Your task to perform on an android device: Open Google Maps and go to "Timeline" Image 0: 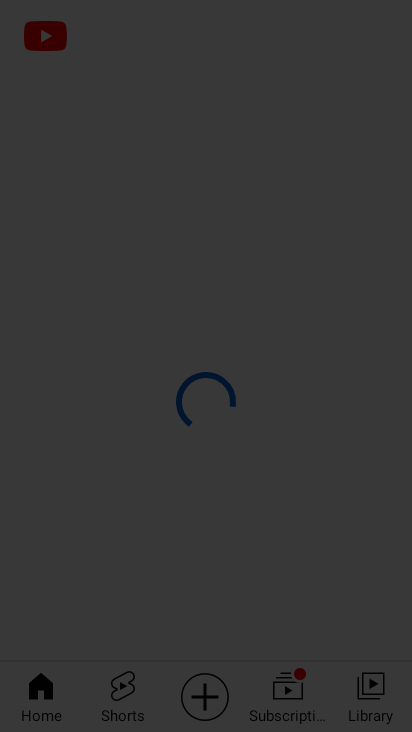
Step 0: click (262, 562)
Your task to perform on an android device: Open Google Maps and go to "Timeline" Image 1: 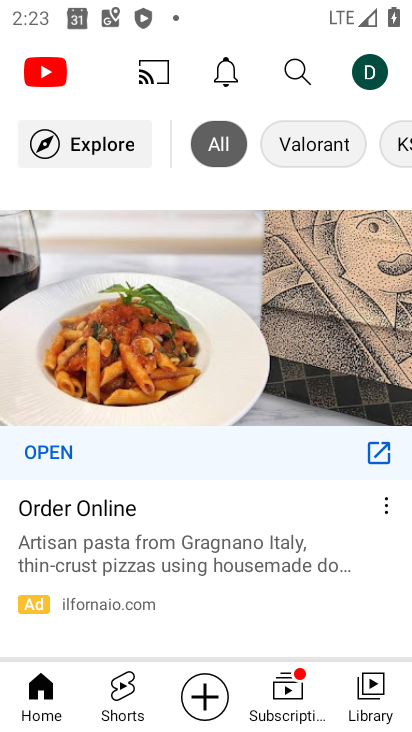
Step 1: press home button
Your task to perform on an android device: Open Google Maps and go to "Timeline" Image 2: 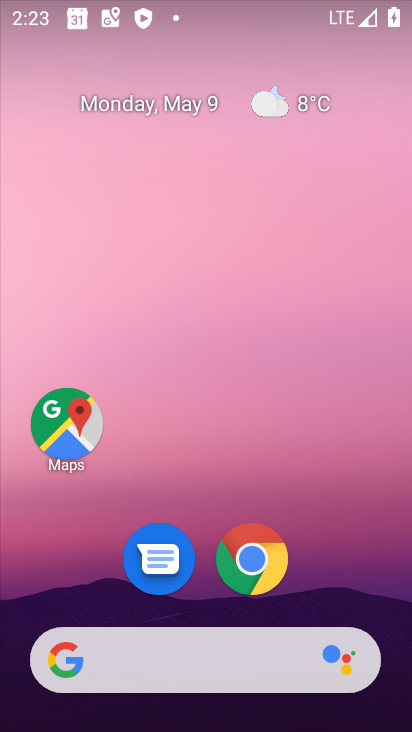
Step 2: click (72, 437)
Your task to perform on an android device: Open Google Maps and go to "Timeline" Image 3: 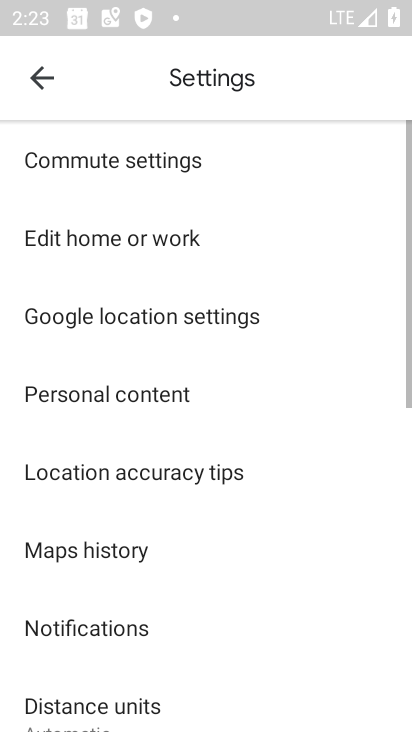
Step 3: click (37, 78)
Your task to perform on an android device: Open Google Maps and go to "Timeline" Image 4: 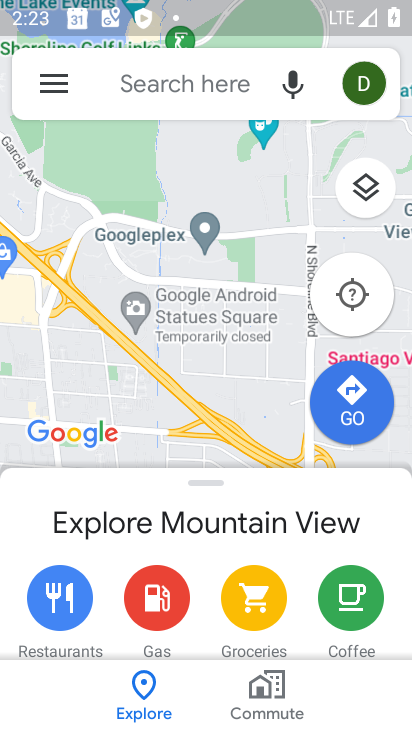
Step 4: click (39, 78)
Your task to perform on an android device: Open Google Maps and go to "Timeline" Image 5: 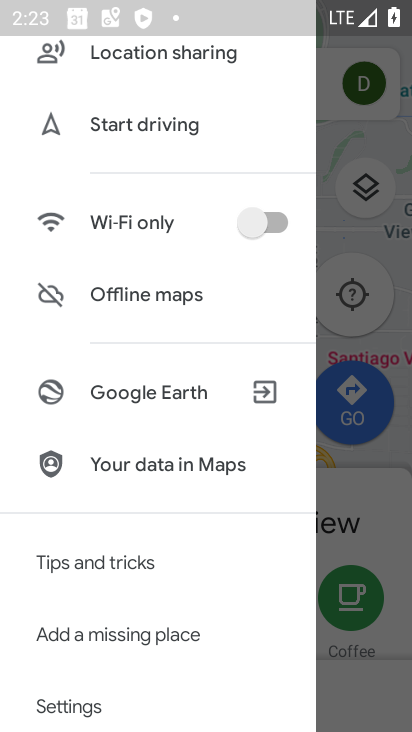
Step 5: drag from (184, 337) to (97, 725)
Your task to perform on an android device: Open Google Maps and go to "Timeline" Image 6: 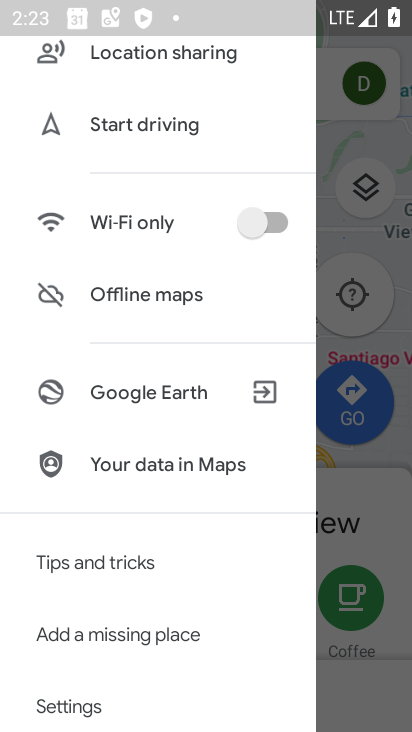
Step 6: drag from (149, 94) to (108, 692)
Your task to perform on an android device: Open Google Maps and go to "Timeline" Image 7: 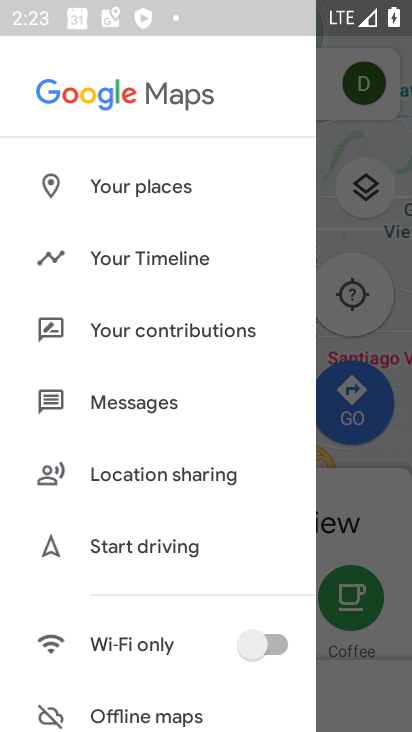
Step 7: click (175, 258)
Your task to perform on an android device: Open Google Maps and go to "Timeline" Image 8: 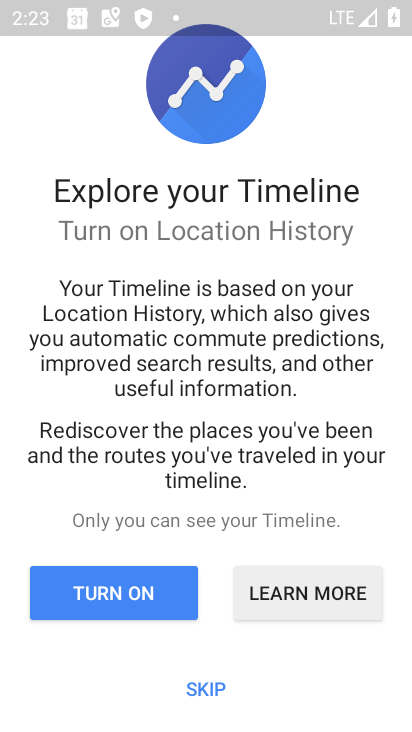
Step 8: click (147, 574)
Your task to perform on an android device: Open Google Maps and go to "Timeline" Image 9: 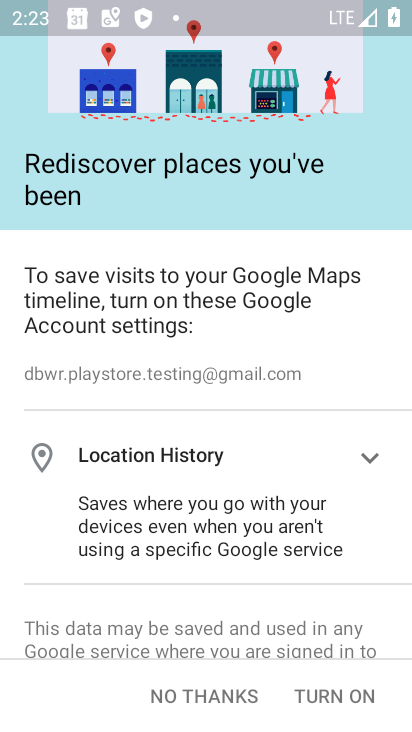
Step 9: drag from (343, 628) to (294, 297)
Your task to perform on an android device: Open Google Maps and go to "Timeline" Image 10: 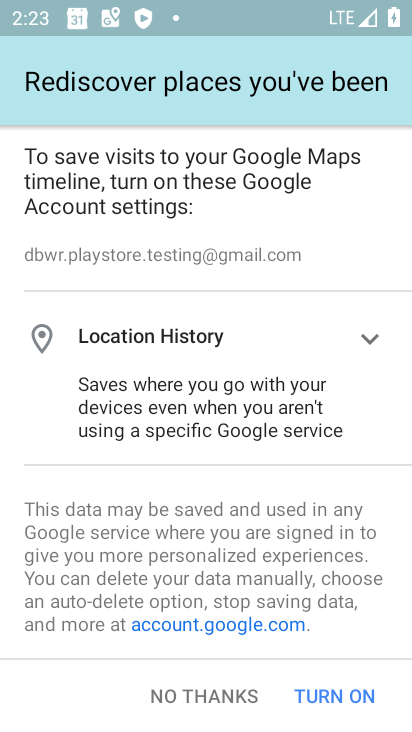
Step 10: drag from (335, 573) to (271, 187)
Your task to perform on an android device: Open Google Maps and go to "Timeline" Image 11: 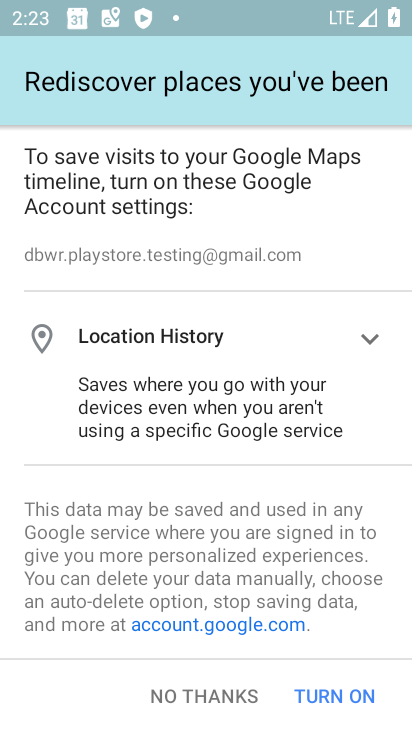
Step 11: click (334, 697)
Your task to perform on an android device: Open Google Maps and go to "Timeline" Image 12: 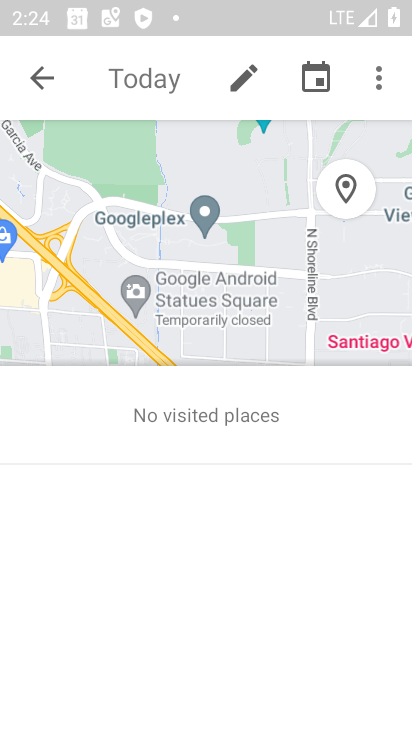
Step 12: task complete